Your task to perform on an android device: manage bookmarks in the chrome app Image 0: 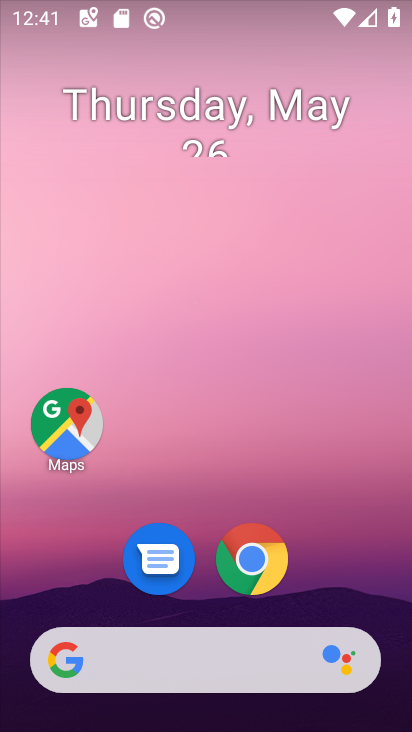
Step 0: press home button
Your task to perform on an android device: manage bookmarks in the chrome app Image 1: 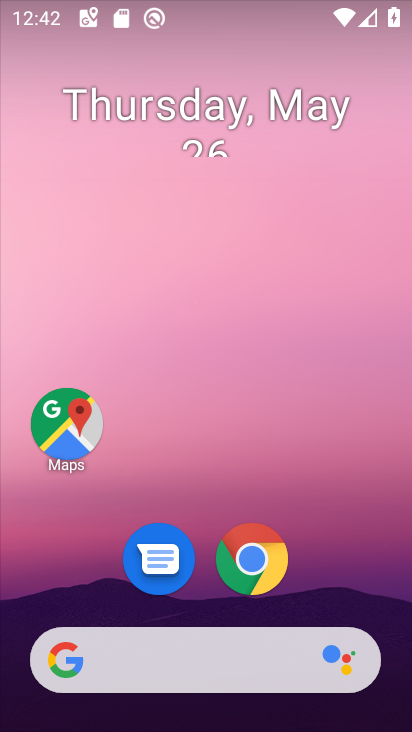
Step 1: click (257, 551)
Your task to perform on an android device: manage bookmarks in the chrome app Image 2: 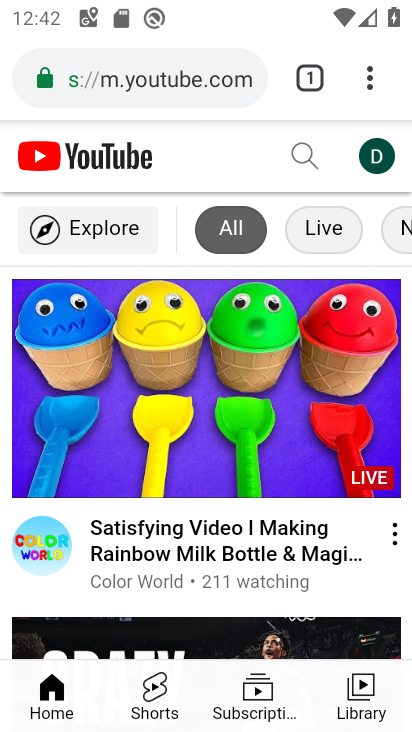
Step 2: task complete